Your task to perform on an android device: delete browsing data in the chrome app Image 0: 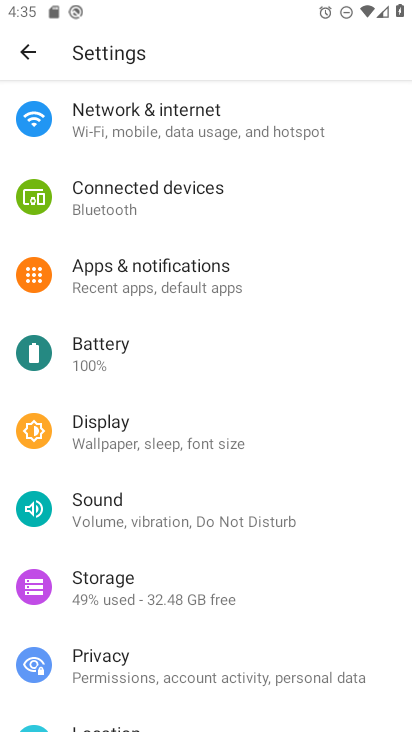
Step 0: press home button
Your task to perform on an android device: delete browsing data in the chrome app Image 1: 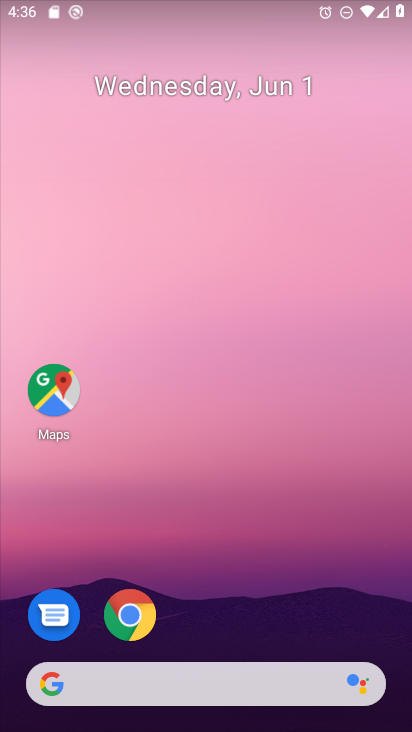
Step 1: click (129, 602)
Your task to perform on an android device: delete browsing data in the chrome app Image 2: 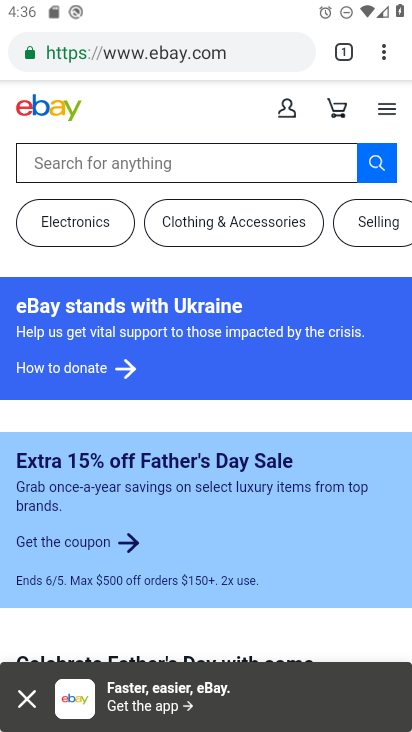
Step 2: click (376, 47)
Your task to perform on an android device: delete browsing data in the chrome app Image 3: 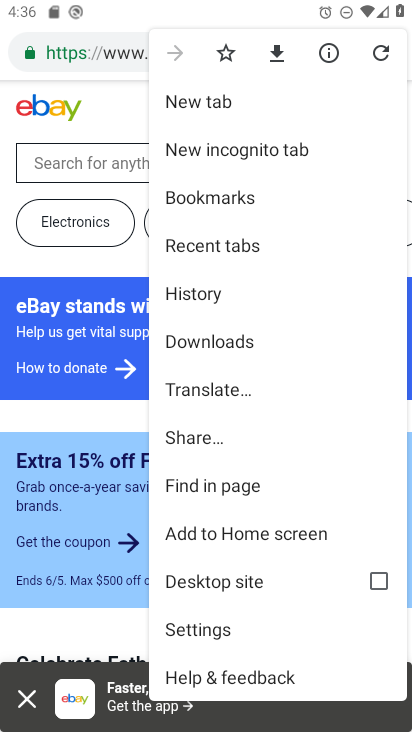
Step 3: click (229, 291)
Your task to perform on an android device: delete browsing data in the chrome app Image 4: 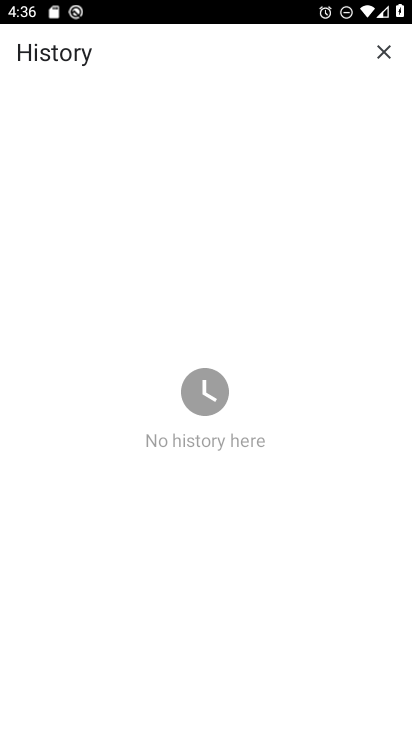
Step 4: task complete